Your task to perform on an android device: Open sound settings Image 0: 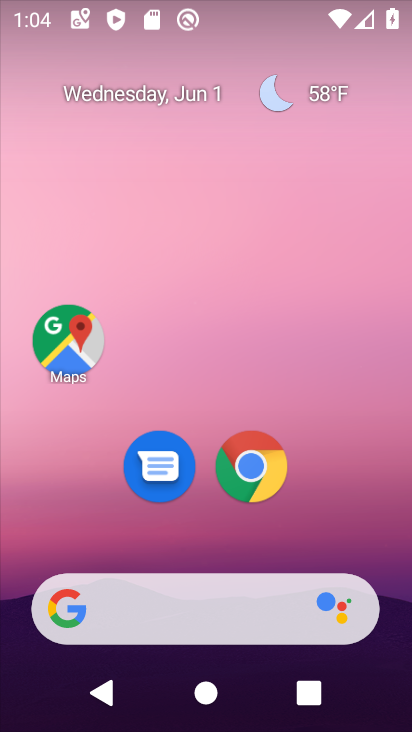
Step 0: drag from (369, 563) to (288, 334)
Your task to perform on an android device: Open sound settings Image 1: 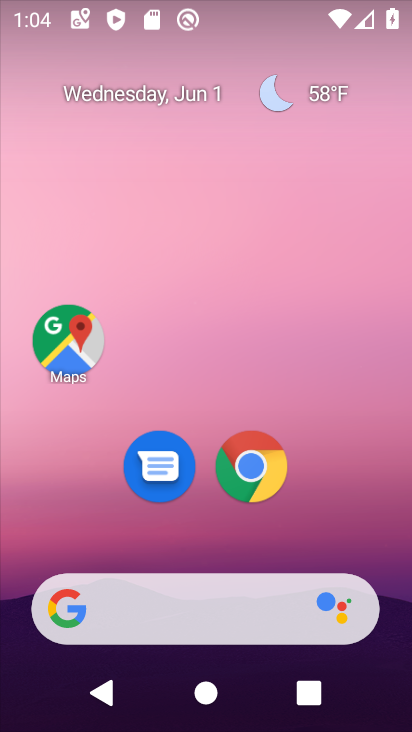
Step 1: drag from (369, 506) to (241, 54)
Your task to perform on an android device: Open sound settings Image 2: 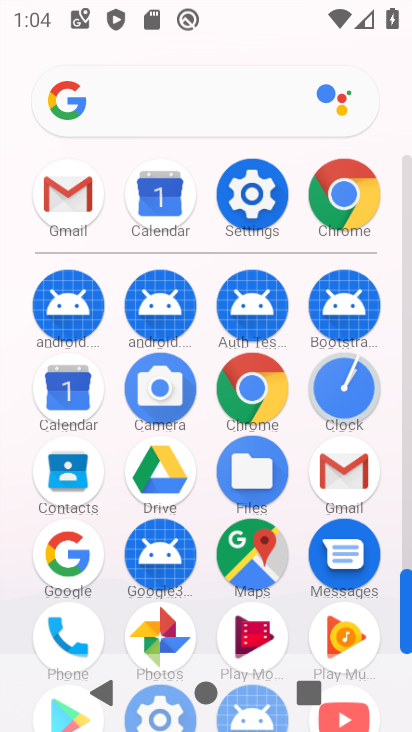
Step 2: click (268, 181)
Your task to perform on an android device: Open sound settings Image 3: 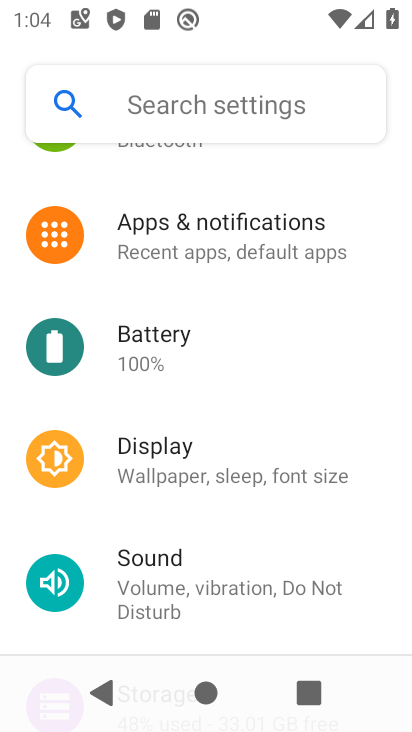
Step 3: click (234, 570)
Your task to perform on an android device: Open sound settings Image 4: 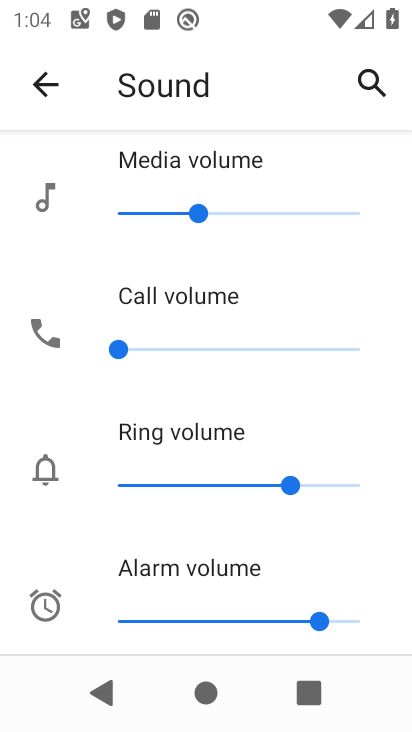
Step 4: task complete